Your task to perform on an android device: change the clock display to show seconds Image 0: 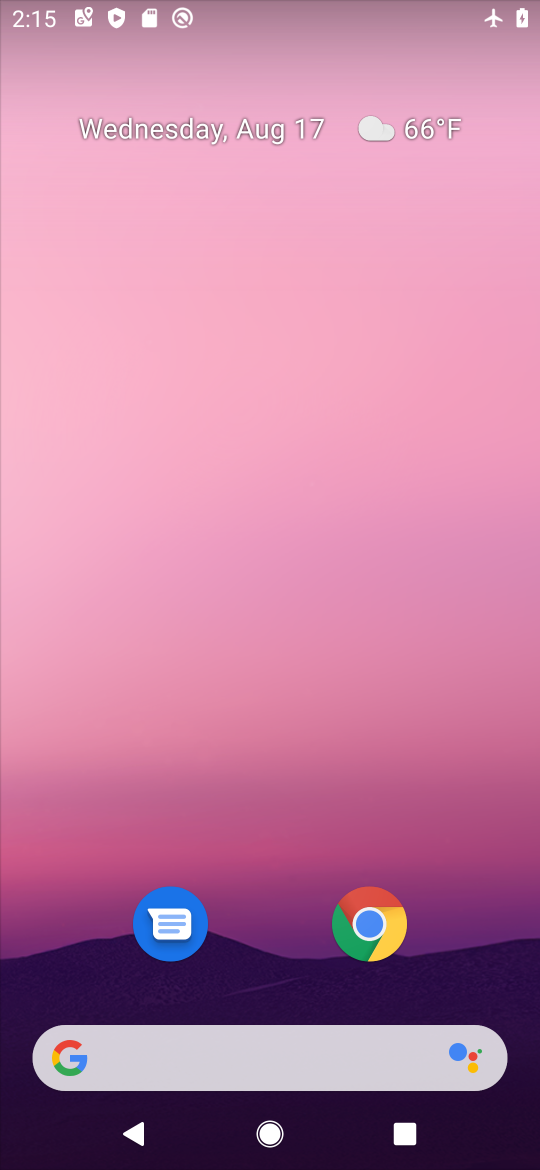
Step 0: drag from (246, 1061) to (182, 275)
Your task to perform on an android device: change the clock display to show seconds Image 1: 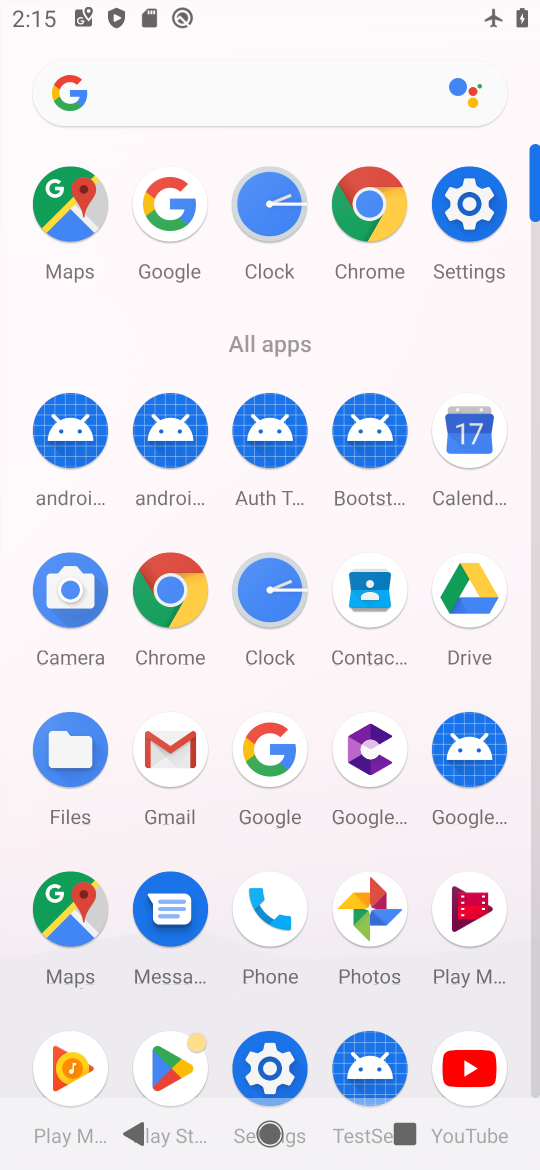
Step 1: click (270, 207)
Your task to perform on an android device: change the clock display to show seconds Image 2: 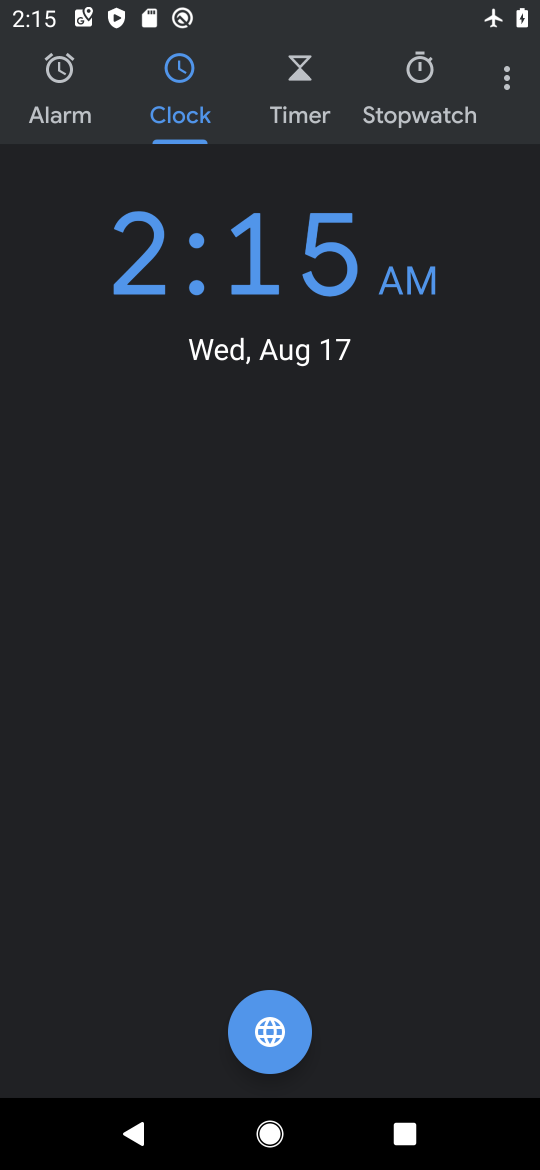
Step 2: click (507, 79)
Your task to perform on an android device: change the clock display to show seconds Image 3: 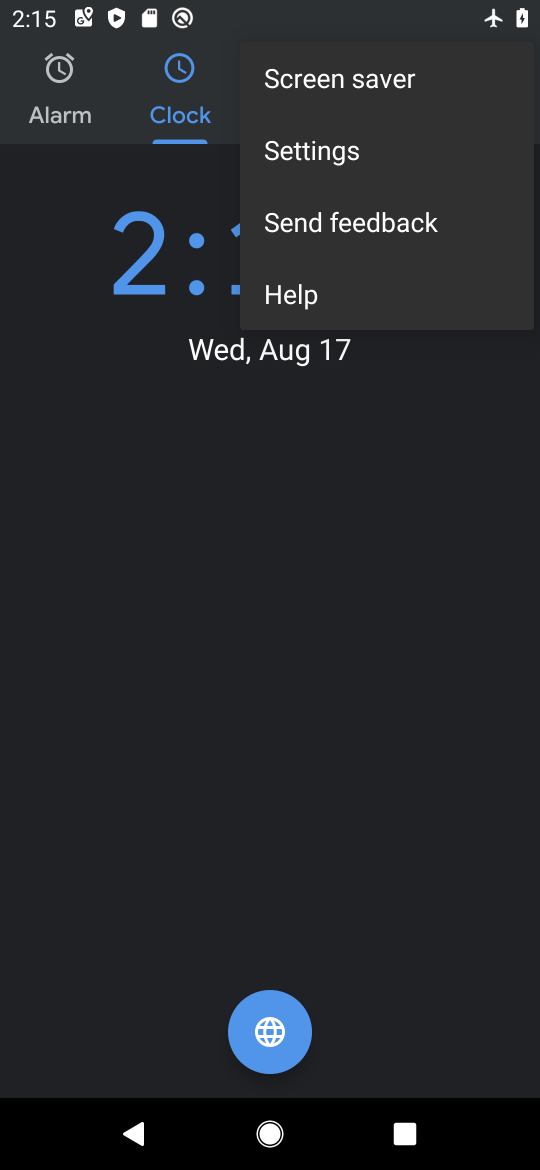
Step 3: click (356, 161)
Your task to perform on an android device: change the clock display to show seconds Image 4: 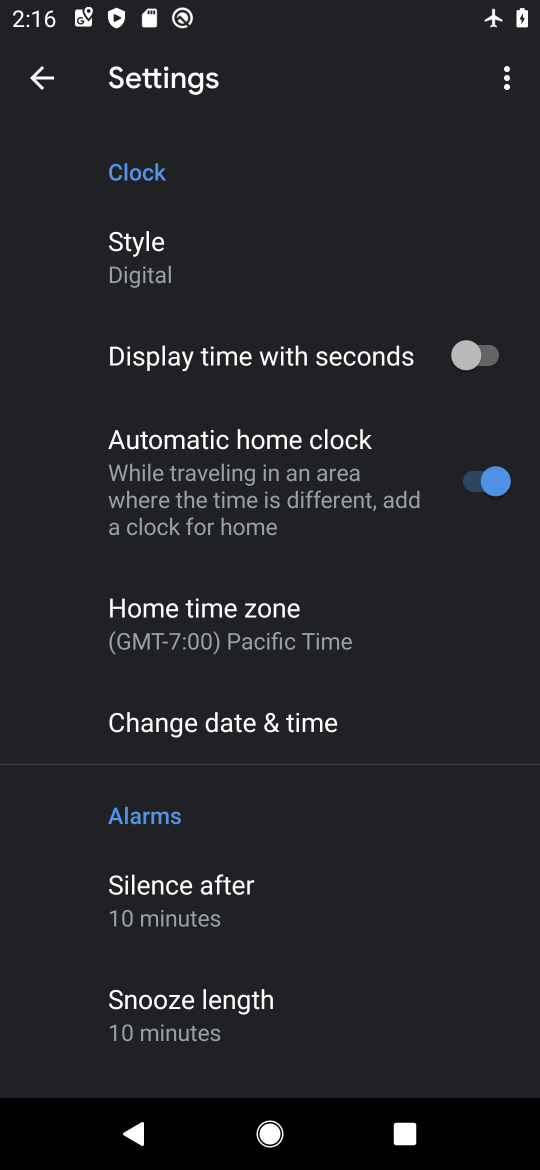
Step 4: click (490, 358)
Your task to perform on an android device: change the clock display to show seconds Image 5: 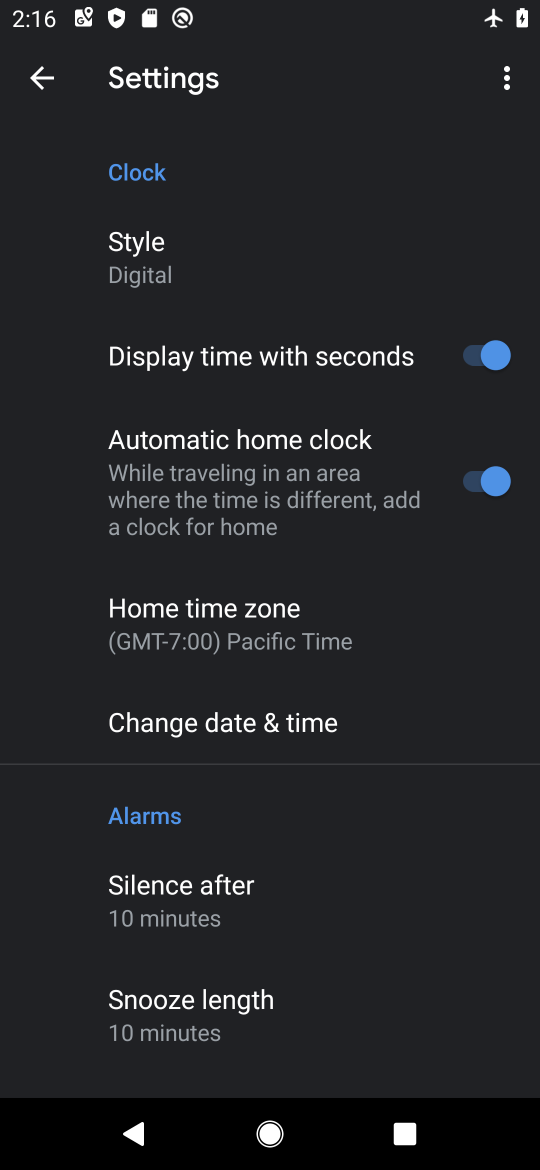
Step 5: task complete